Your task to perform on an android device: delete location history Image 0: 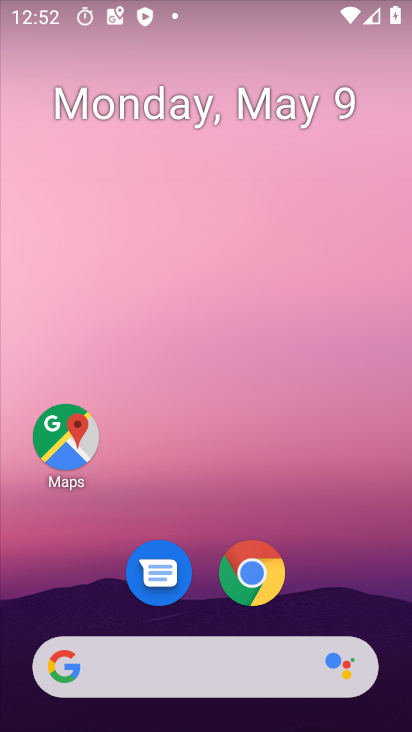
Step 0: click (64, 439)
Your task to perform on an android device: delete location history Image 1: 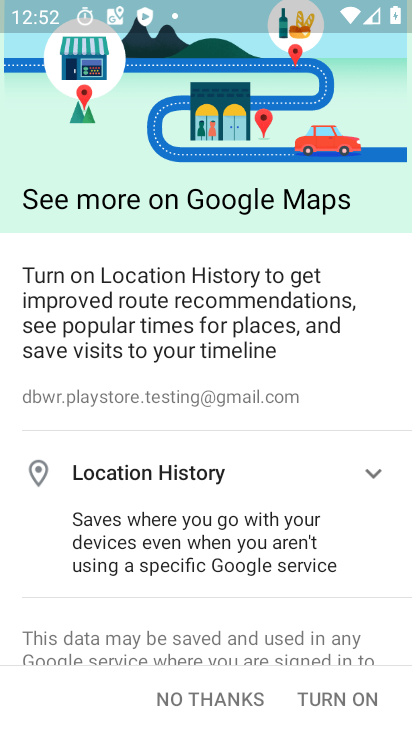
Step 1: drag from (275, 596) to (273, 286)
Your task to perform on an android device: delete location history Image 2: 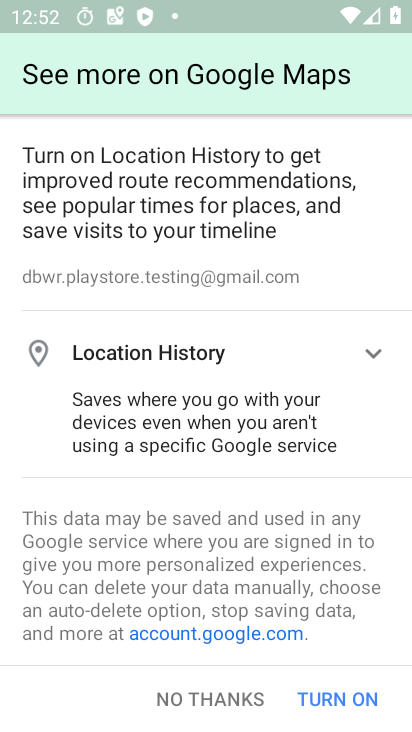
Step 2: click (199, 432)
Your task to perform on an android device: delete location history Image 3: 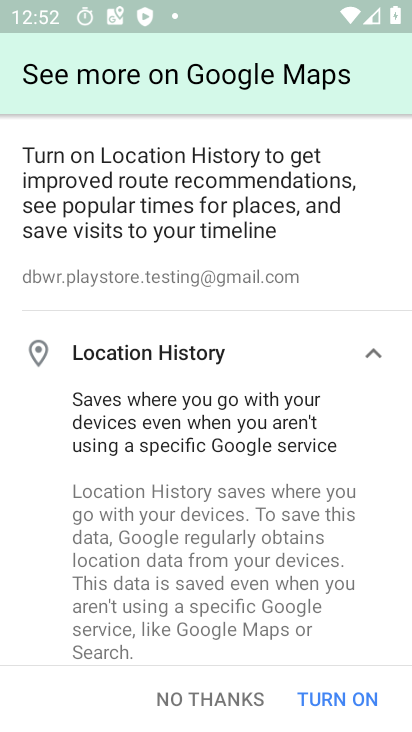
Step 3: drag from (211, 470) to (177, 486)
Your task to perform on an android device: delete location history Image 4: 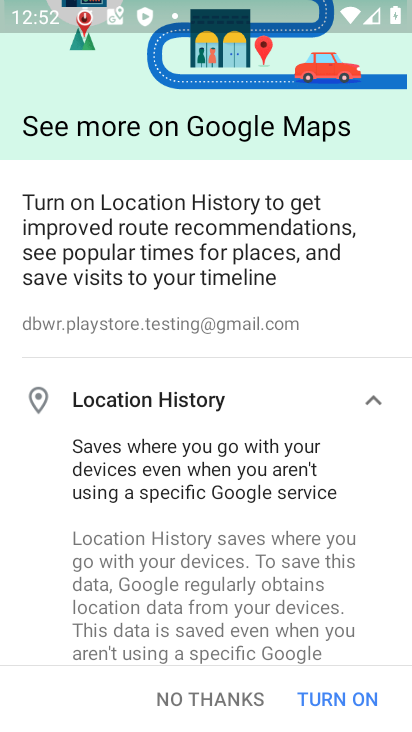
Step 4: press back button
Your task to perform on an android device: delete location history Image 5: 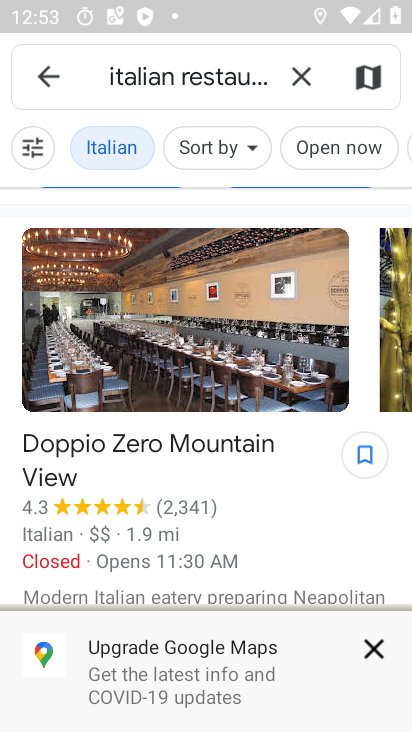
Step 5: press back button
Your task to perform on an android device: delete location history Image 6: 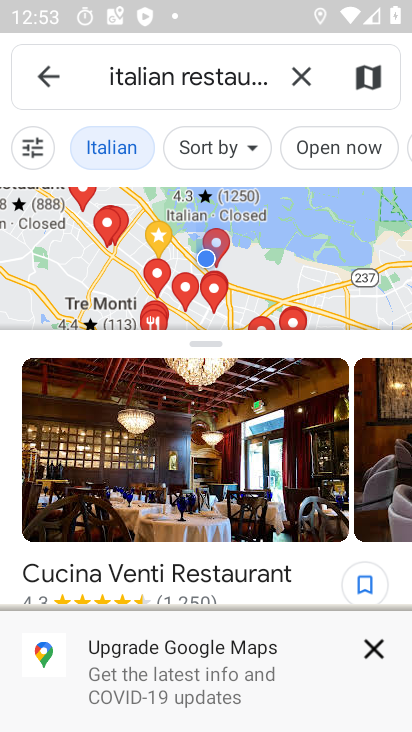
Step 6: press back button
Your task to perform on an android device: delete location history Image 7: 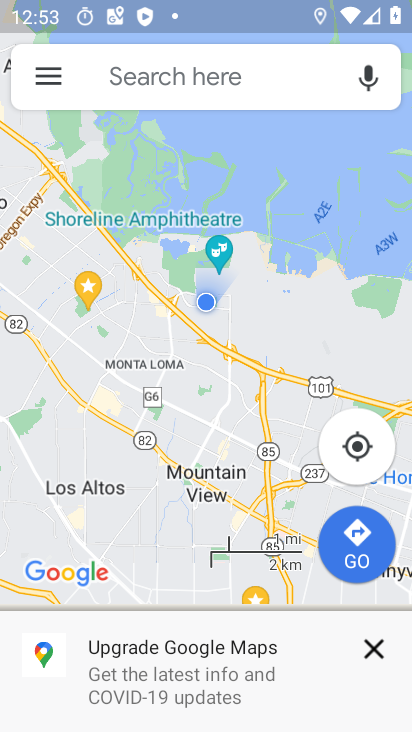
Step 7: click (56, 74)
Your task to perform on an android device: delete location history Image 8: 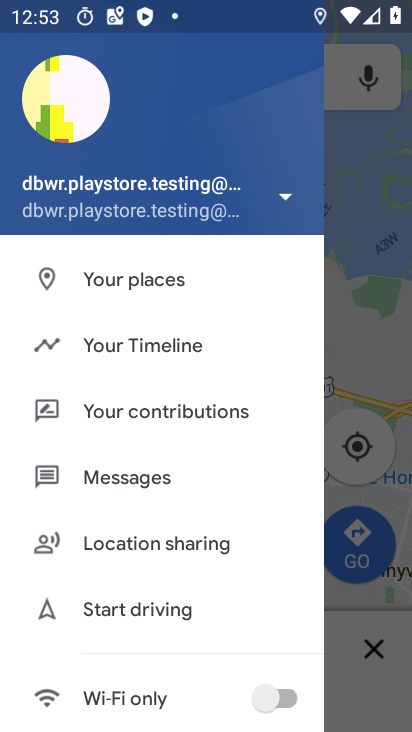
Step 8: drag from (108, 612) to (121, 244)
Your task to perform on an android device: delete location history Image 9: 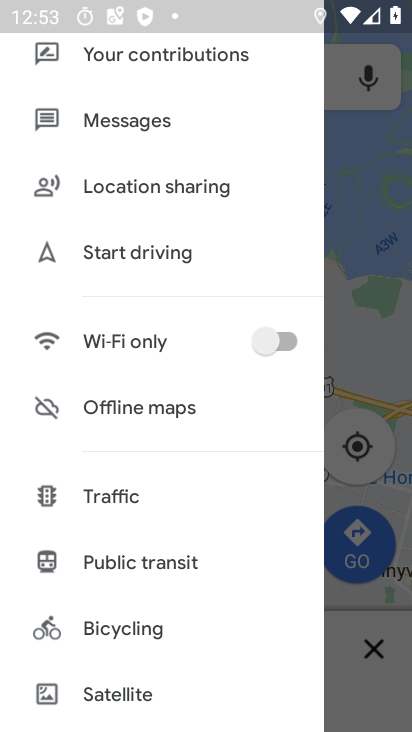
Step 9: drag from (131, 679) to (141, 262)
Your task to perform on an android device: delete location history Image 10: 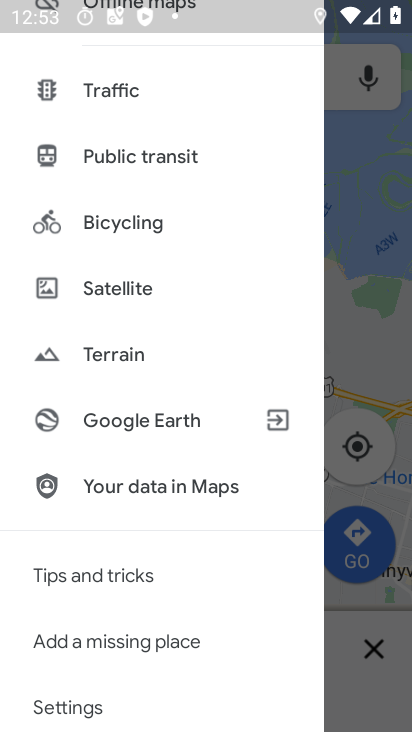
Step 10: click (66, 703)
Your task to perform on an android device: delete location history Image 11: 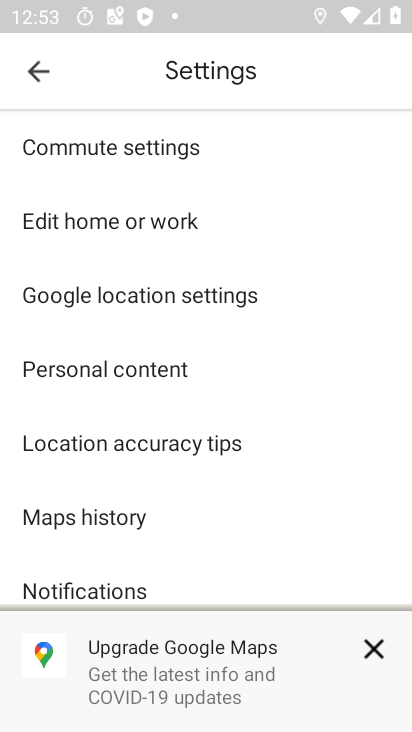
Step 11: click (107, 517)
Your task to perform on an android device: delete location history Image 12: 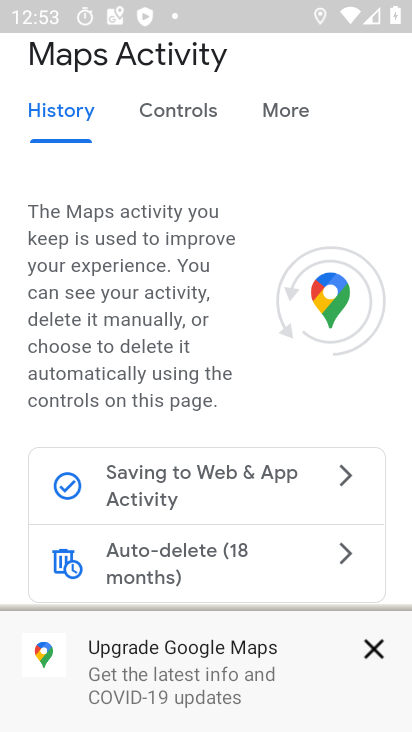
Step 12: drag from (187, 555) to (186, 163)
Your task to perform on an android device: delete location history Image 13: 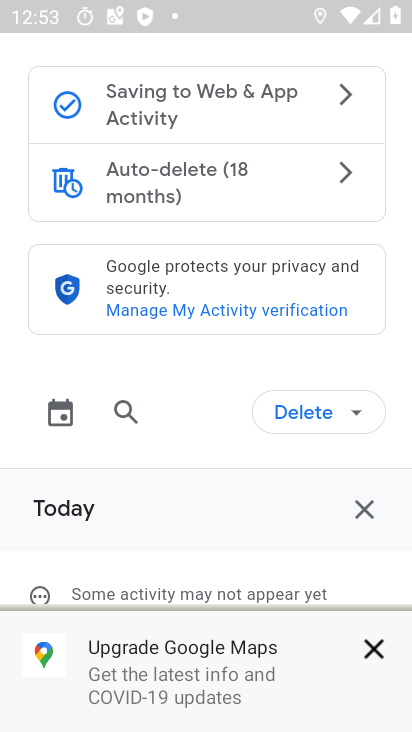
Step 13: click (317, 412)
Your task to perform on an android device: delete location history Image 14: 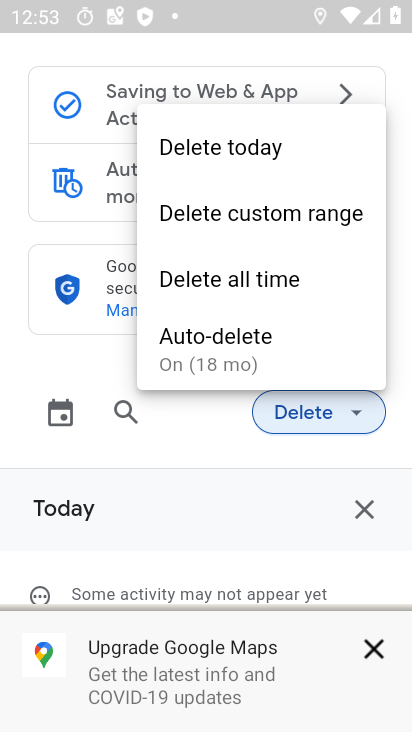
Step 14: drag from (171, 543) to (167, 333)
Your task to perform on an android device: delete location history Image 15: 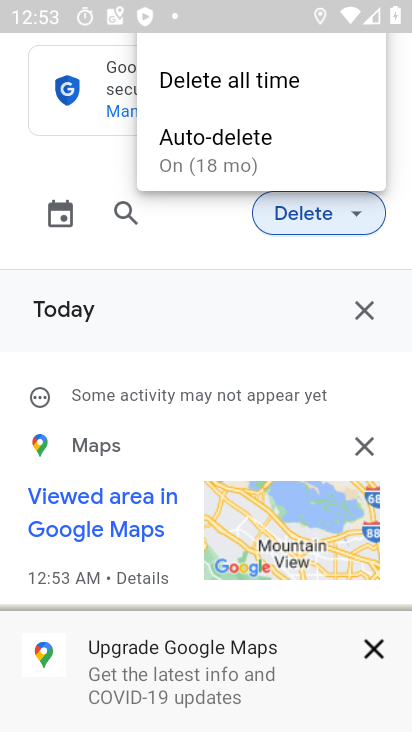
Step 15: click (259, 78)
Your task to perform on an android device: delete location history Image 16: 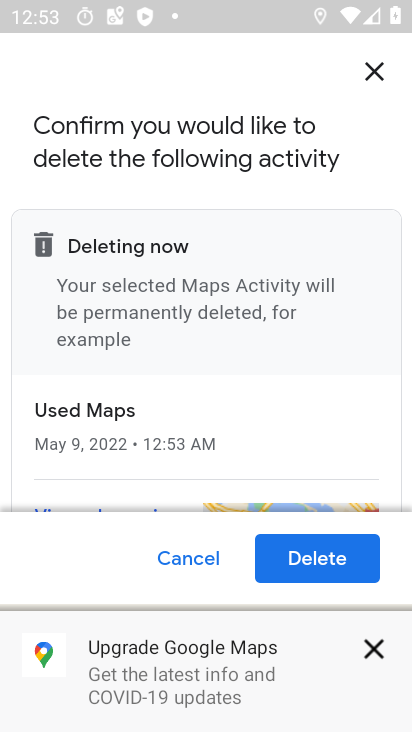
Step 16: click (306, 558)
Your task to perform on an android device: delete location history Image 17: 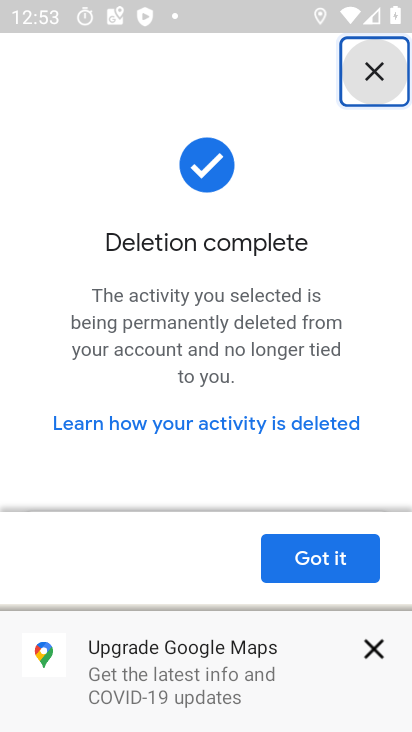
Step 17: click (322, 561)
Your task to perform on an android device: delete location history Image 18: 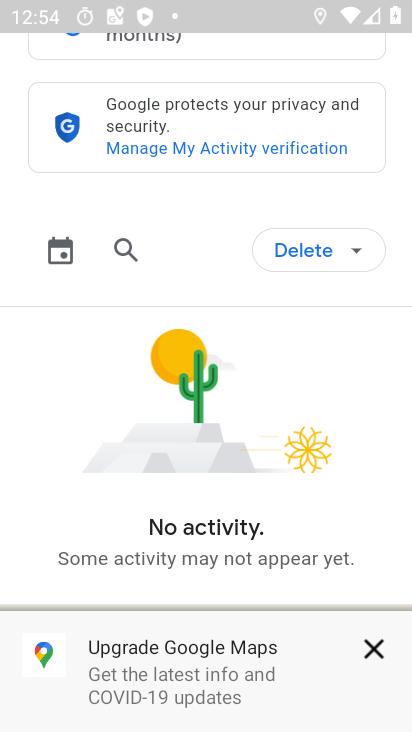
Step 18: task complete